Your task to perform on an android device: Go to Yahoo.com Image 0: 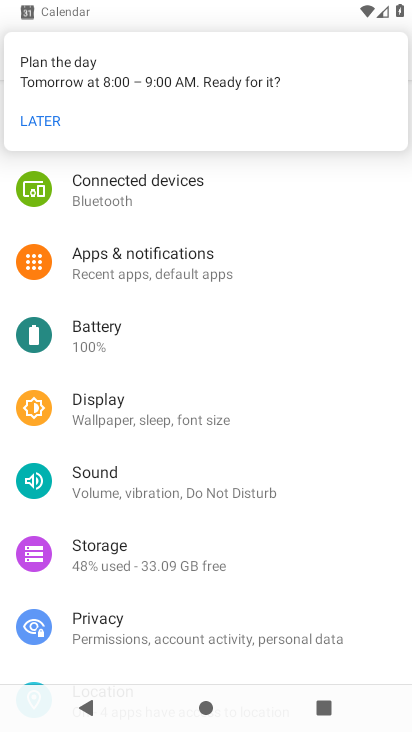
Step 0: press home button
Your task to perform on an android device: Go to Yahoo.com Image 1: 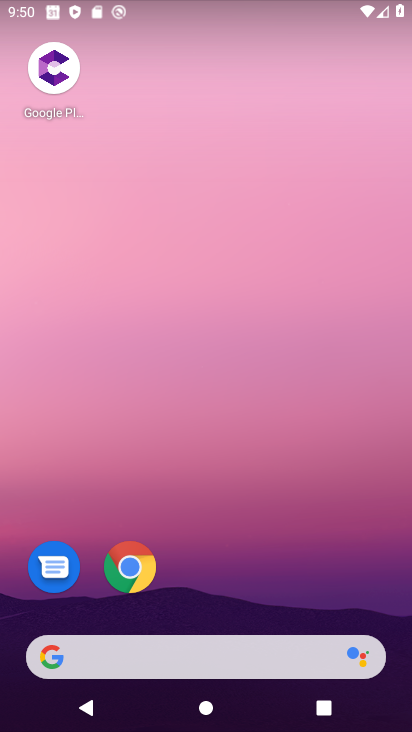
Step 1: drag from (216, 632) to (213, 269)
Your task to perform on an android device: Go to Yahoo.com Image 2: 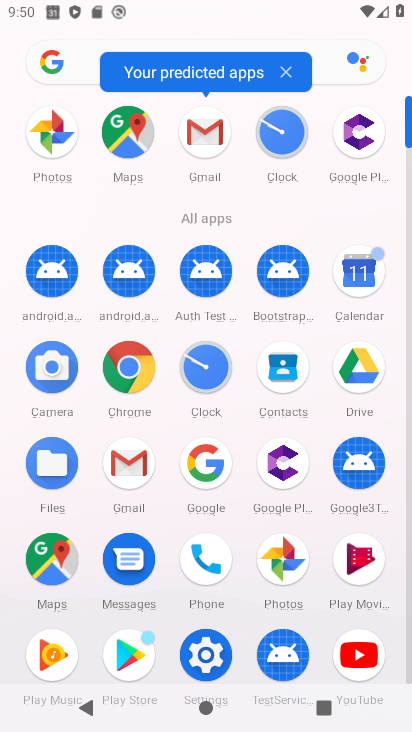
Step 2: click (130, 369)
Your task to perform on an android device: Go to Yahoo.com Image 3: 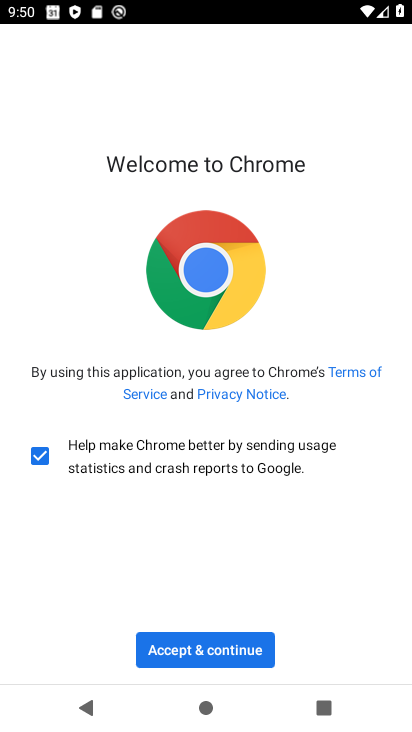
Step 3: click (204, 667)
Your task to perform on an android device: Go to Yahoo.com Image 4: 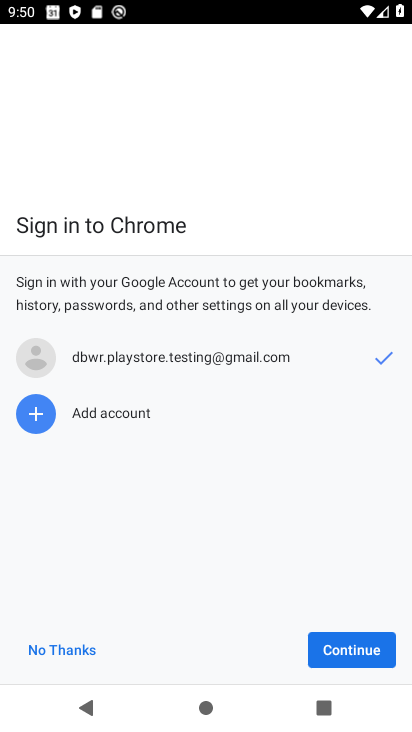
Step 4: click (356, 643)
Your task to perform on an android device: Go to Yahoo.com Image 5: 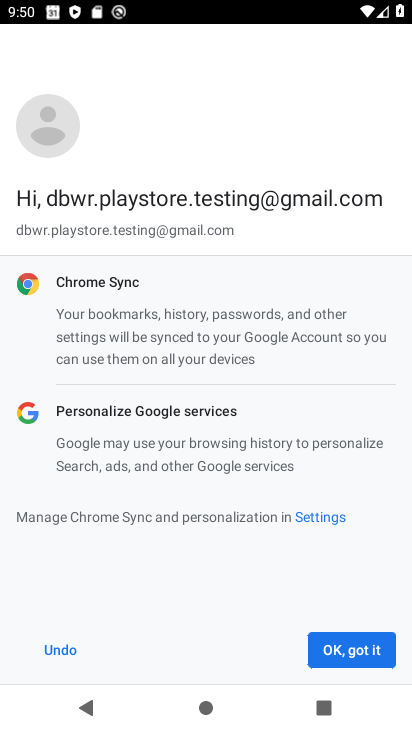
Step 5: click (356, 656)
Your task to perform on an android device: Go to Yahoo.com Image 6: 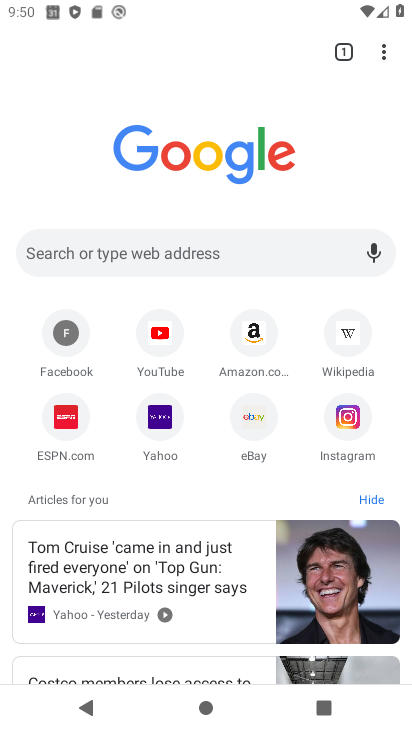
Step 6: click (160, 428)
Your task to perform on an android device: Go to Yahoo.com Image 7: 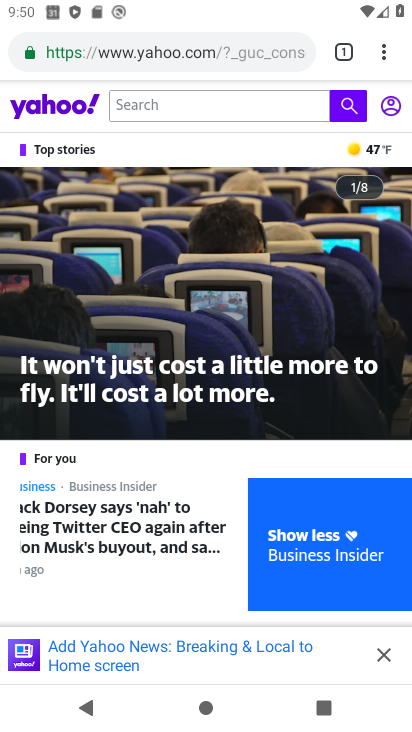
Step 7: task complete